Your task to perform on an android device: Search for vegetarian restaurants on Maps Image 0: 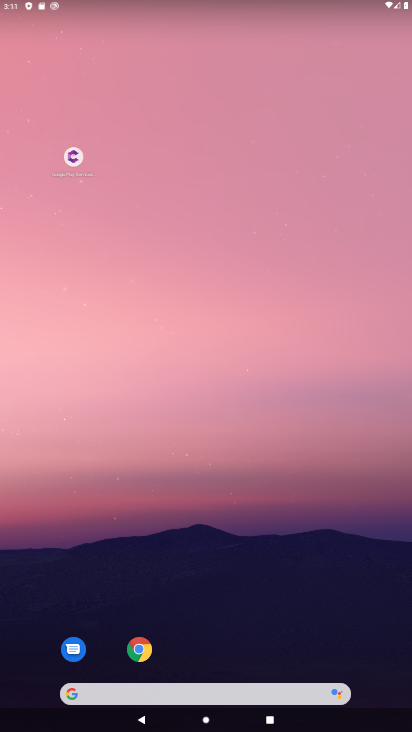
Step 0: drag from (209, 676) to (290, 331)
Your task to perform on an android device: Search for vegetarian restaurants on Maps Image 1: 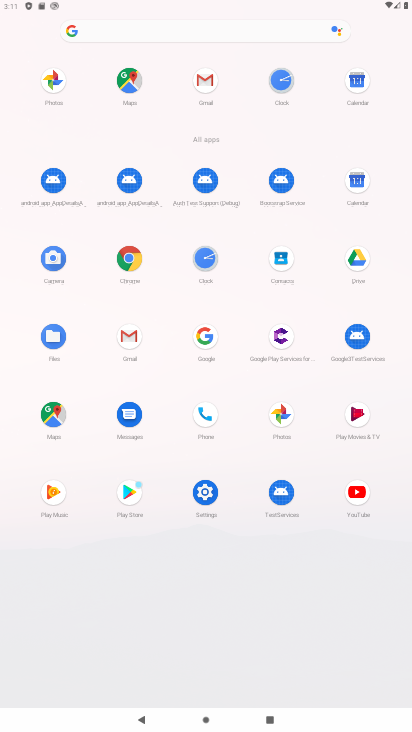
Step 1: click (49, 409)
Your task to perform on an android device: Search for vegetarian restaurants on Maps Image 2: 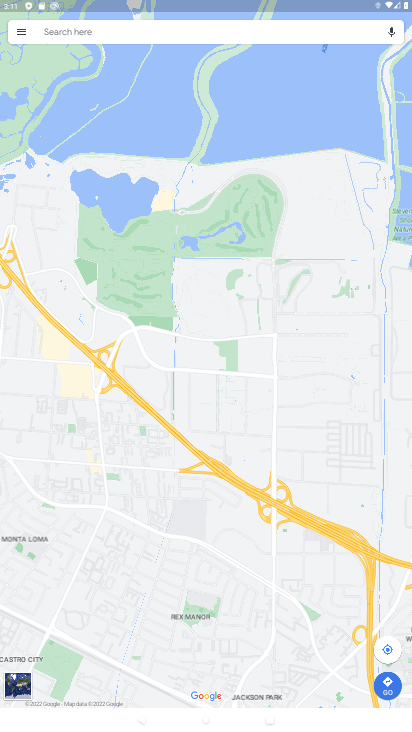
Step 2: click (127, 40)
Your task to perform on an android device: Search for vegetarian restaurants on Maps Image 3: 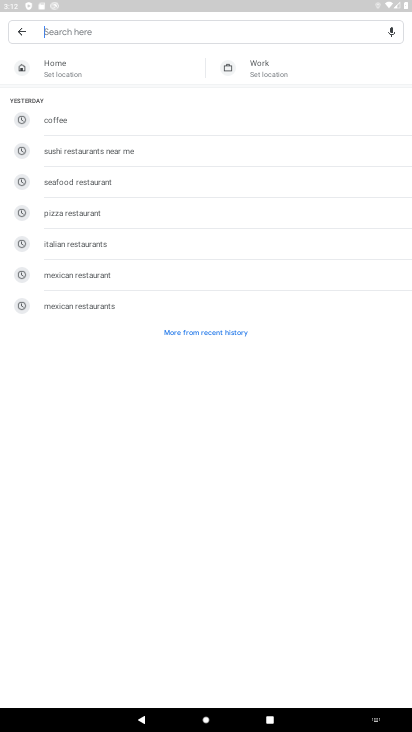
Step 3: type "vegetarian restaurants"
Your task to perform on an android device: Search for vegetarian restaurants on Maps Image 4: 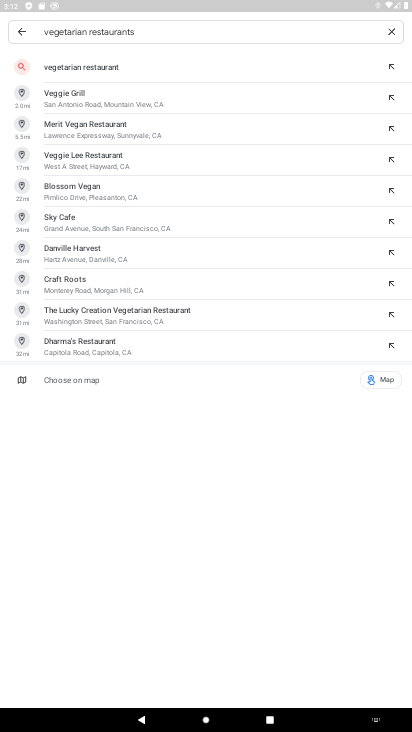
Step 4: click (138, 64)
Your task to perform on an android device: Search for vegetarian restaurants on Maps Image 5: 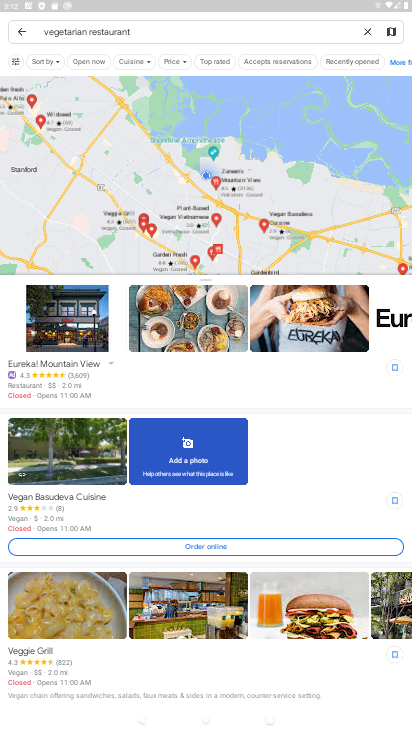
Step 5: task complete